Your task to perform on an android device: Open Chrome and go to the settings page Image 0: 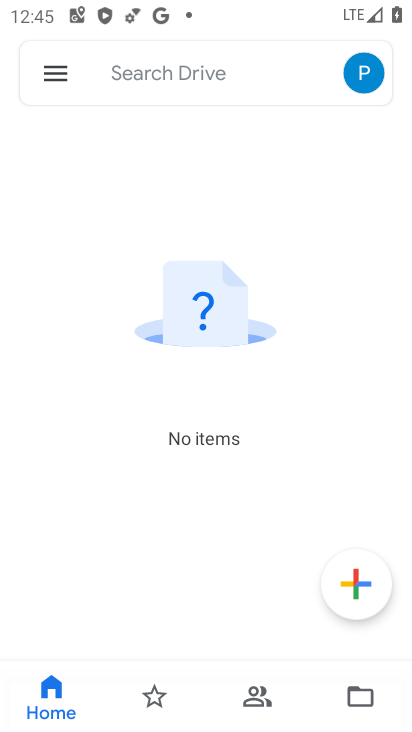
Step 0: press home button
Your task to perform on an android device: Open Chrome and go to the settings page Image 1: 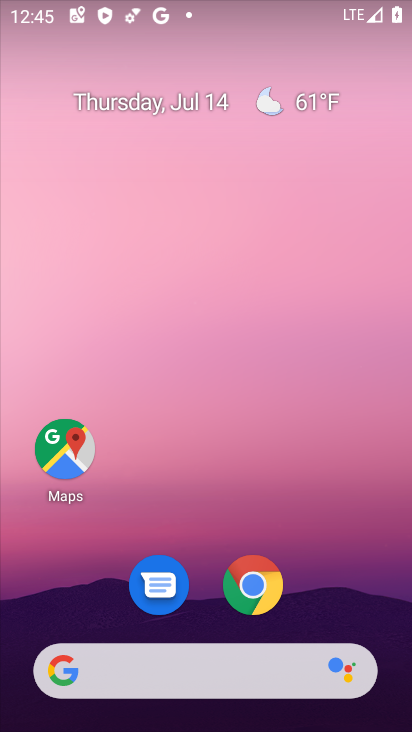
Step 1: click (264, 564)
Your task to perform on an android device: Open Chrome and go to the settings page Image 2: 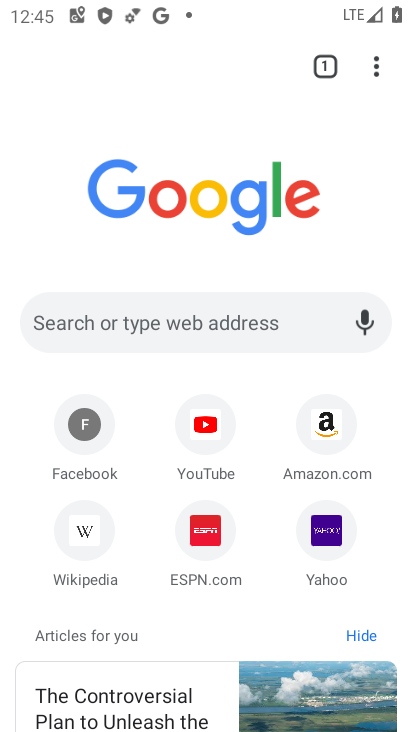
Step 2: click (378, 62)
Your task to perform on an android device: Open Chrome and go to the settings page Image 3: 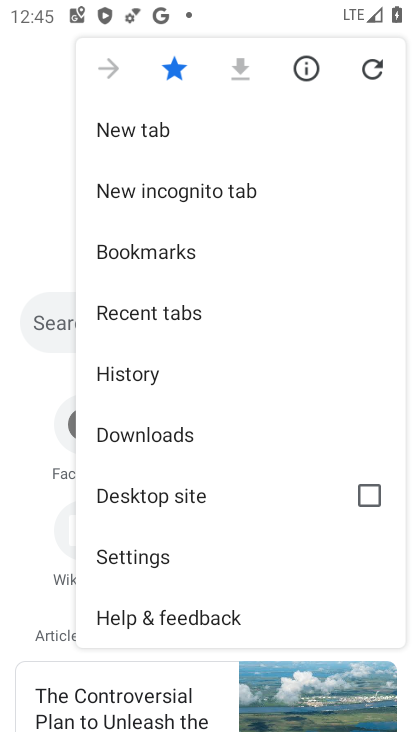
Step 3: click (122, 555)
Your task to perform on an android device: Open Chrome and go to the settings page Image 4: 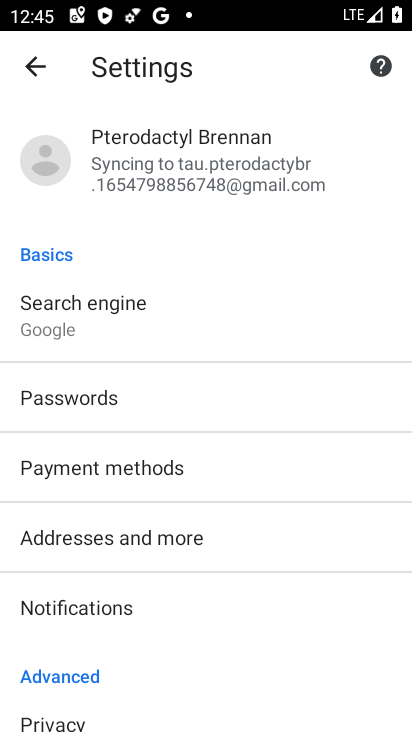
Step 4: task complete